Your task to perform on an android device: install app "Google Play Music" Image 0: 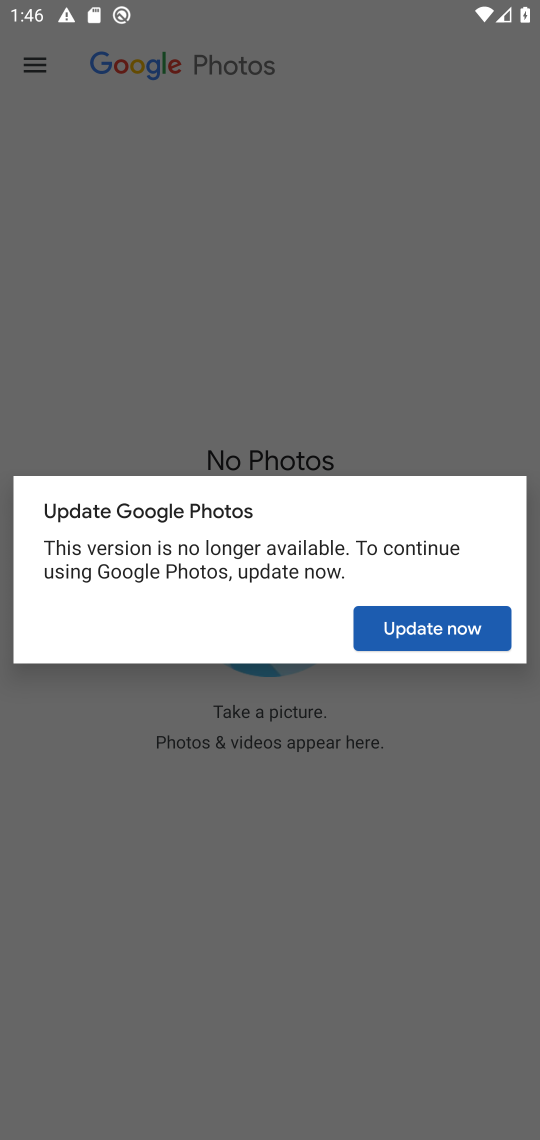
Step 0: press home button
Your task to perform on an android device: install app "Google Play Music" Image 1: 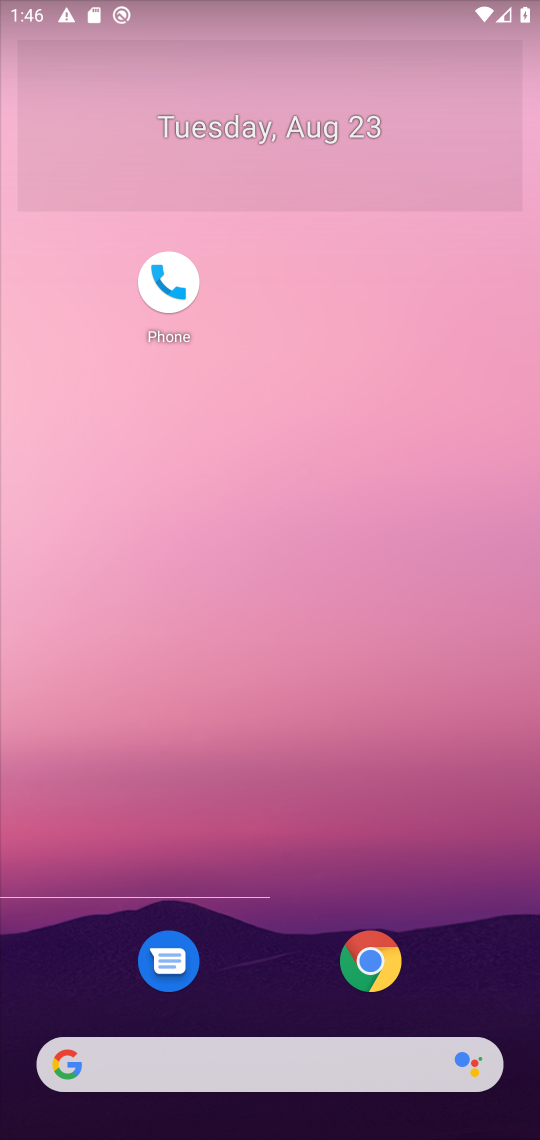
Step 1: drag from (289, 1002) to (354, 41)
Your task to perform on an android device: install app "Google Play Music" Image 2: 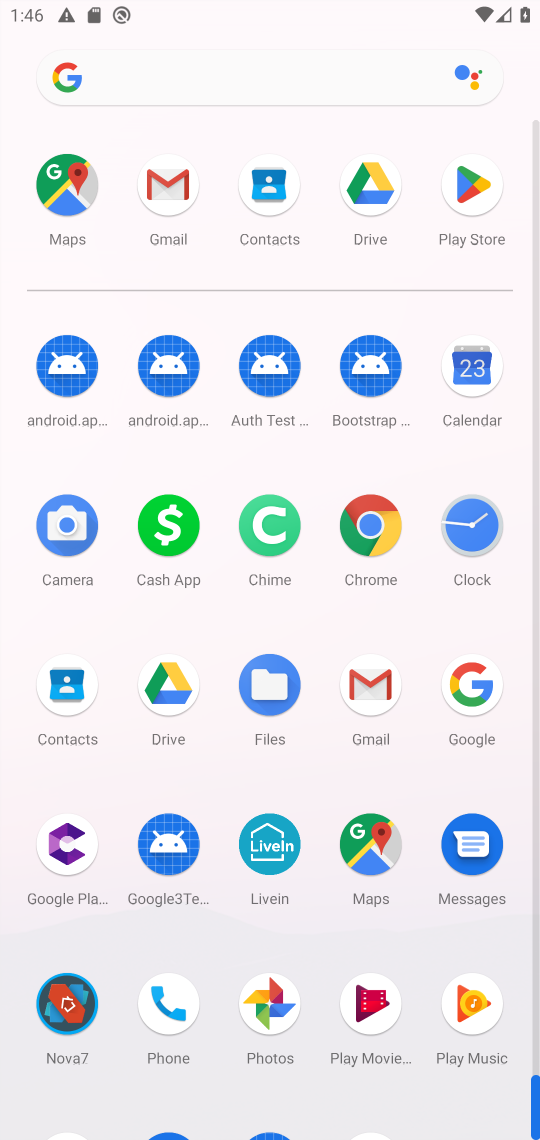
Step 2: click (445, 187)
Your task to perform on an android device: install app "Google Play Music" Image 3: 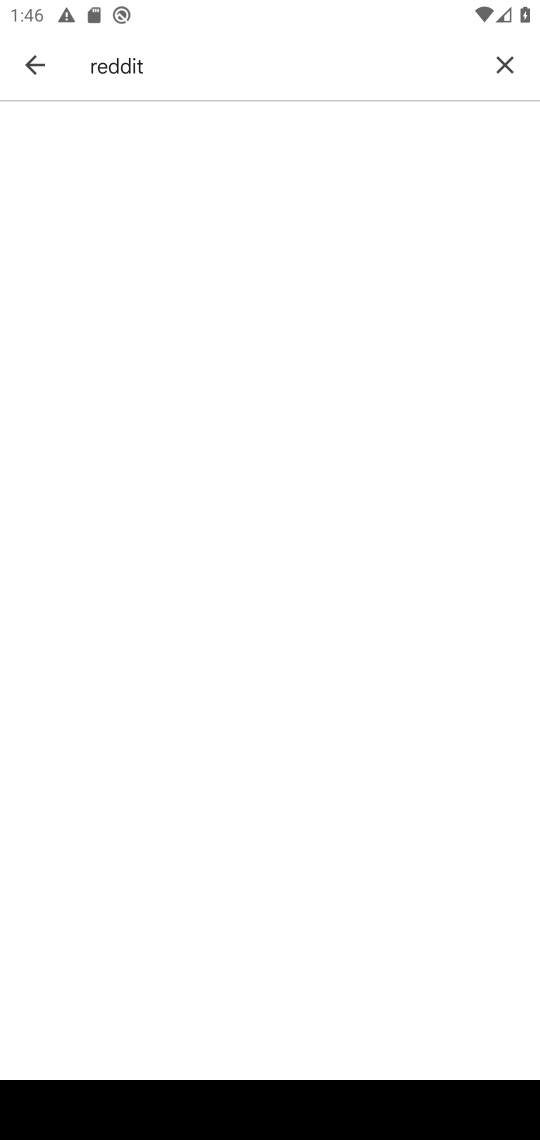
Step 3: click (513, 84)
Your task to perform on an android device: install app "Google Play Music" Image 4: 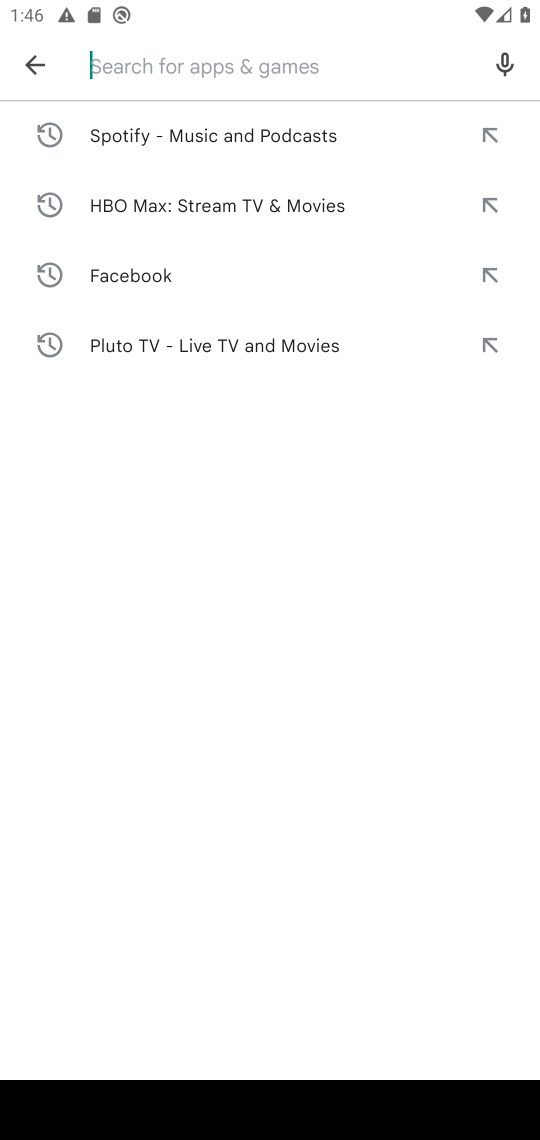
Step 4: type "google play"
Your task to perform on an android device: install app "Google Play Music" Image 5: 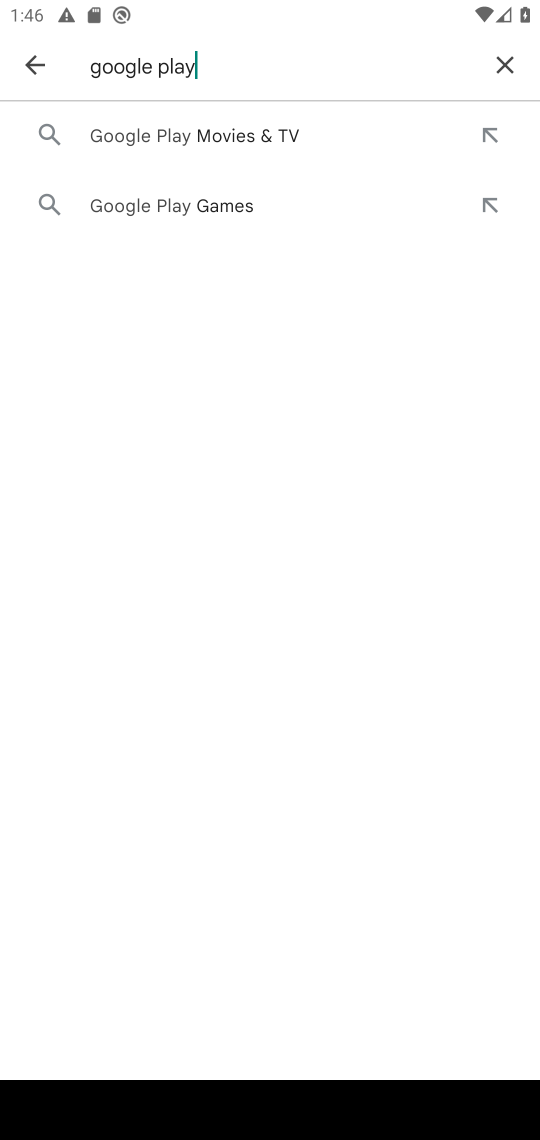
Step 5: task complete